Your task to perform on an android device: delete browsing data in the chrome app Image 0: 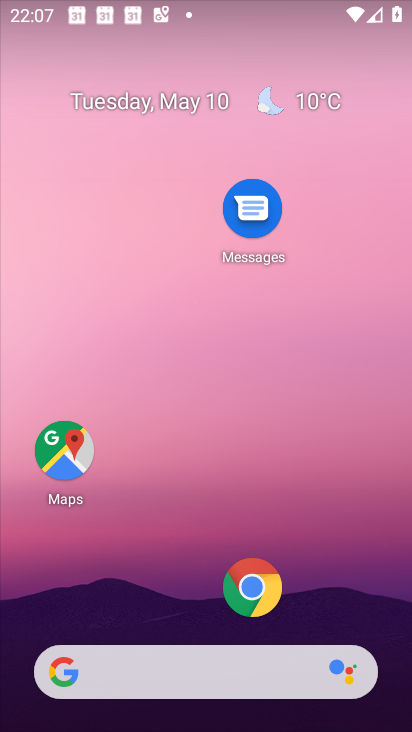
Step 0: click (266, 598)
Your task to perform on an android device: delete browsing data in the chrome app Image 1: 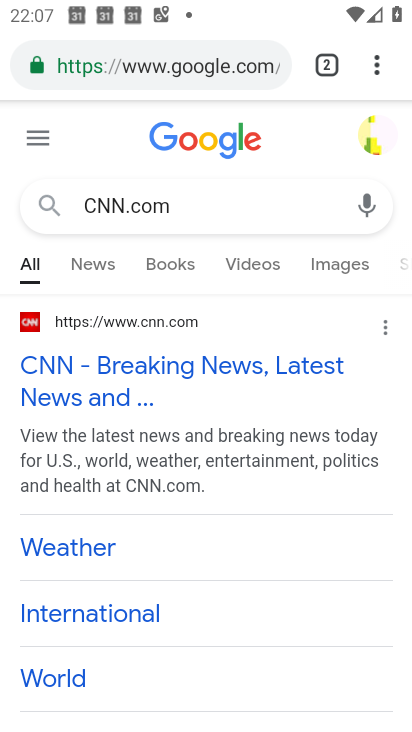
Step 1: click (375, 49)
Your task to perform on an android device: delete browsing data in the chrome app Image 2: 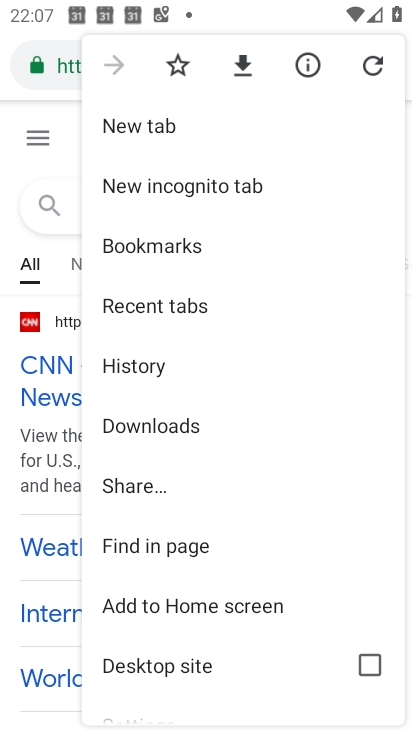
Step 2: drag from (182, 614) to (223, 403)
Your task to perform on an android device: delete browsing data in the chrome app Image 3: 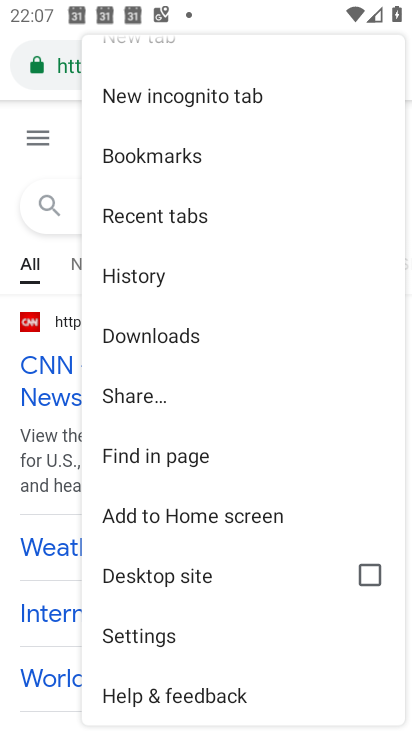
Step 3: click (195, 287)
Your task to perform on an android device: delete browsing data in the chrome app Image 4: 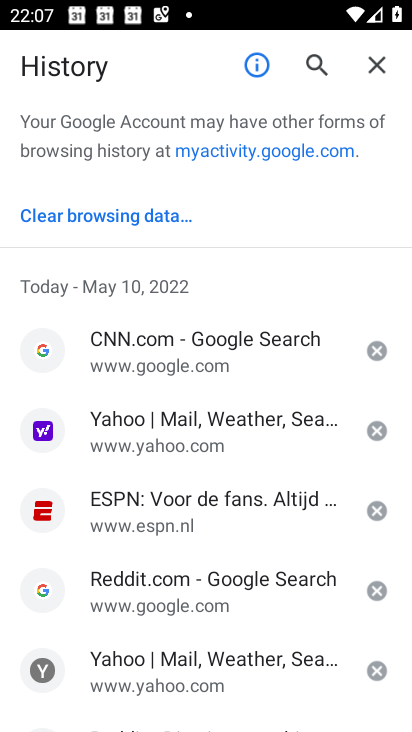
Step 4: click (164, 223)
Your task to perform on an android device: delete browsing data in the chrome app Image 5: 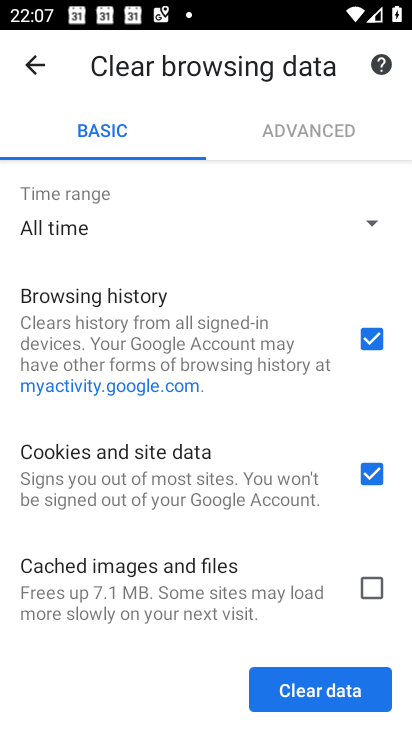
Step 5: click (374, 578)
Your task to perform on an android device: delete browsing data in the chrome app Image 6: 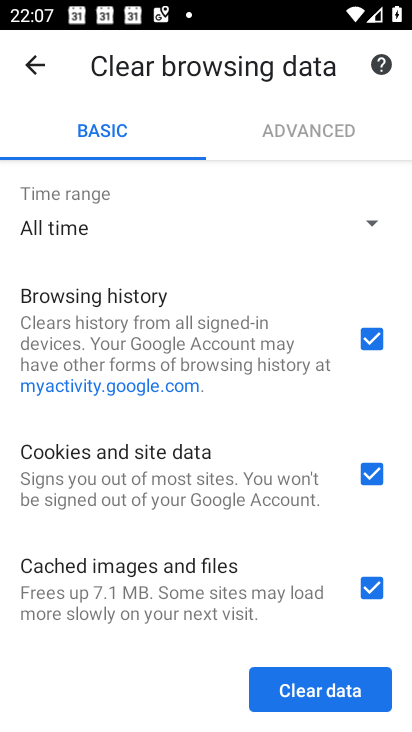
Step 6: click (354, 698)
Your task to perform on an android device: delete browsing data in the chrome app Image 7: 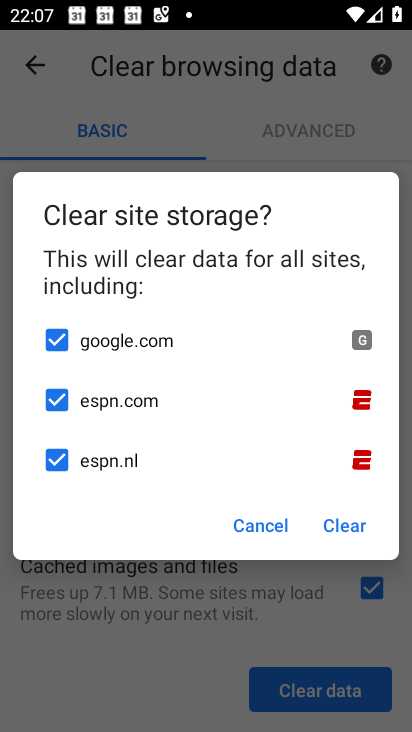
Step 7: click (333, 530)
Your task to perform on an android device: delete browsing data in the chrome app Image 8: 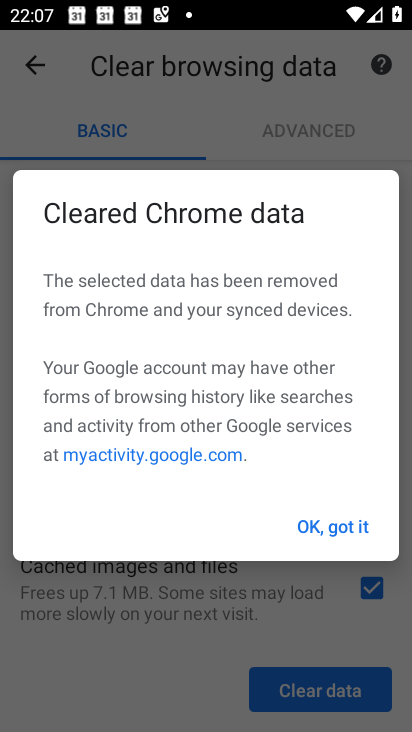
Step 8: click (333, 522)
Your task to perform on an android device: delete browsing data in the chrome app Image 9: 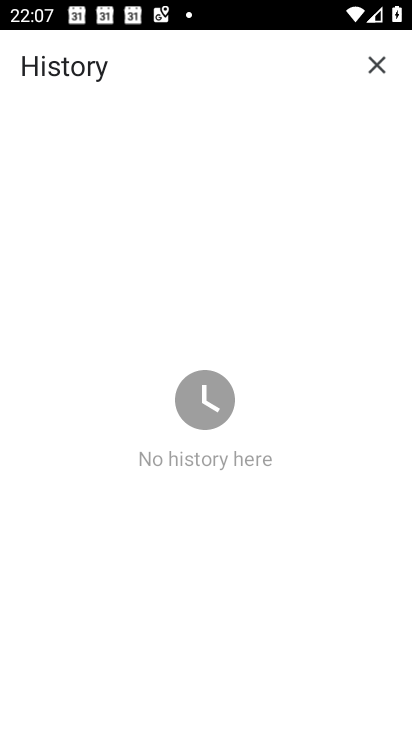
Step 9: task complete